Your task to perform on an android device: Open the map Image 0: 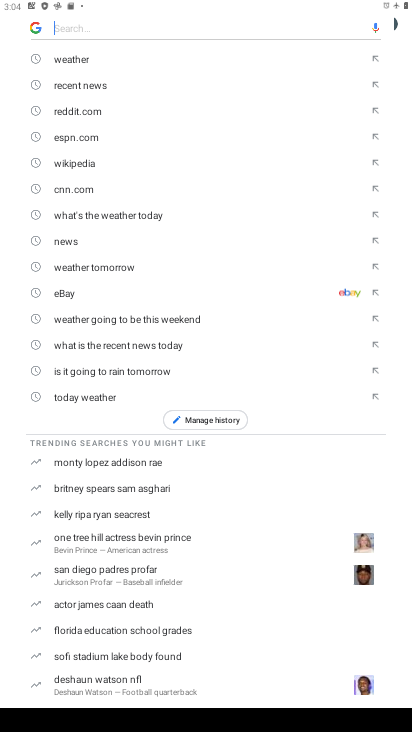
Step 0: press back button
Your task to perform on an android device: Open the map Image 1: 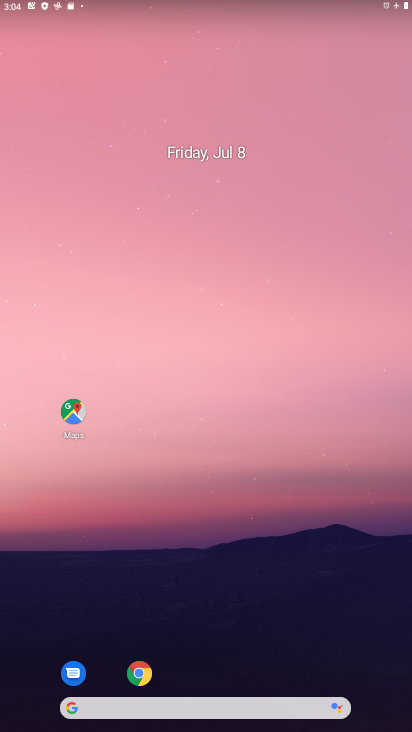
Step 1: click (94, 413)
Your task to perform on an android device: Open the map Image 2: 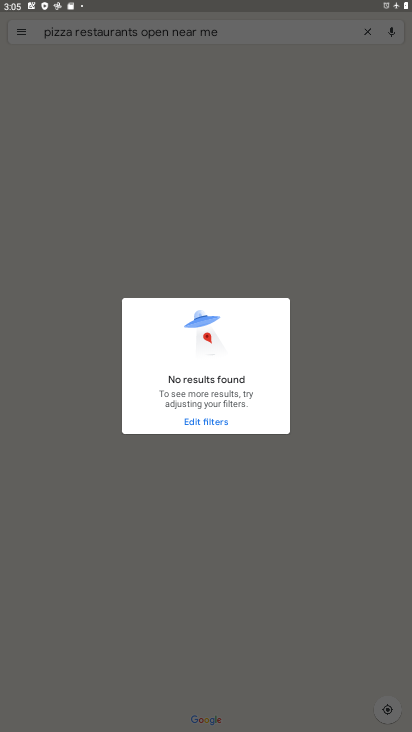
Step 2: task complete